Your task to perform on an android device: change keyboard looks Image 0: 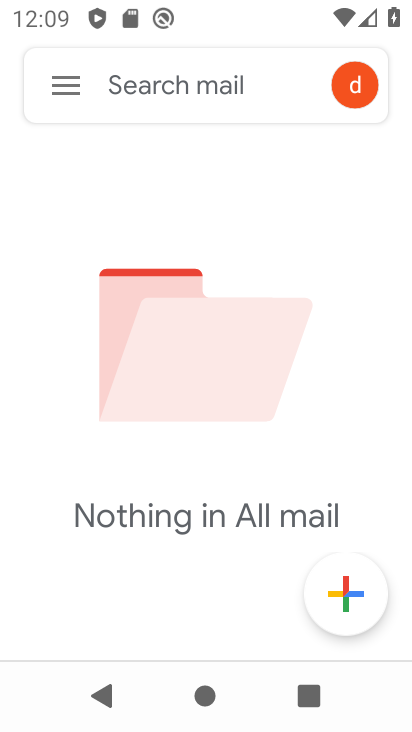
Step 0: press home button
Your task to perform on an android device: change keyboard looks Image 1: 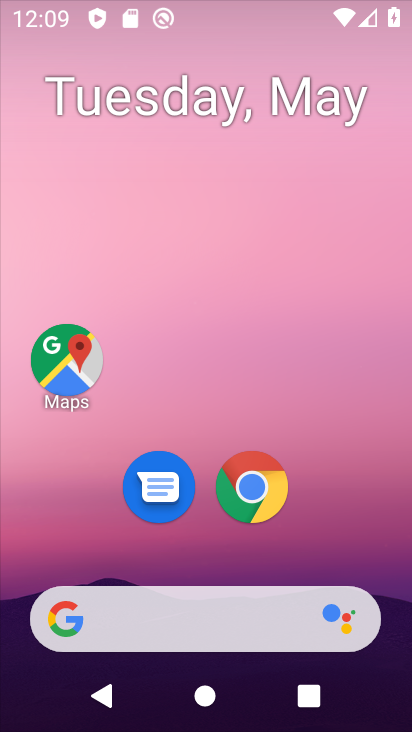
Step 1: drag from (314, 488) to (296, 44)
Your task to perform on an android device: change keyboard looks Image 2: 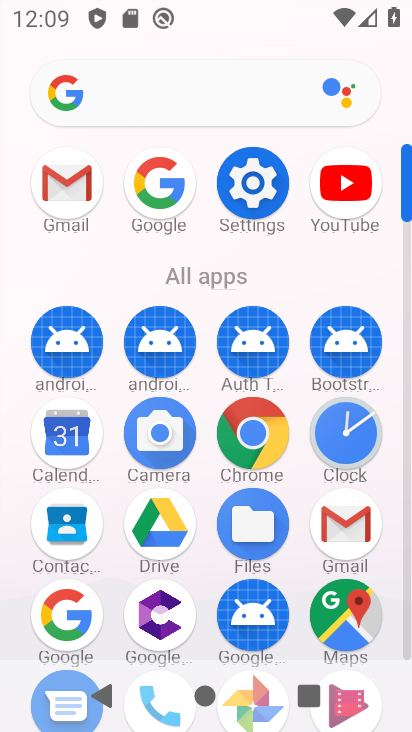
Step 2: click (243, 180)
Your task to perform on an android device: change keyboard looks Image 3: 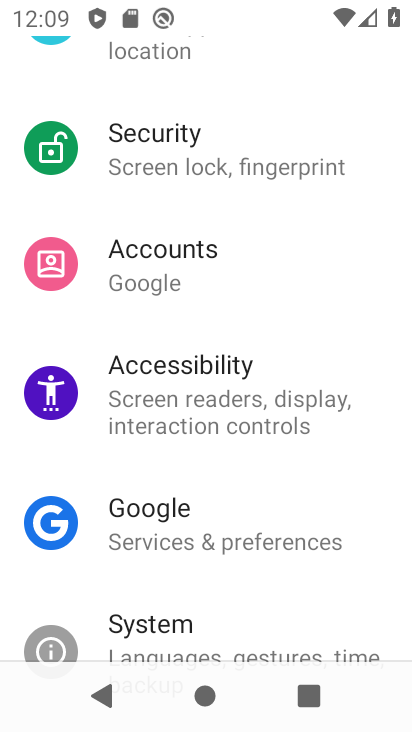
Step 3: click (219, 626)
Your task to perform on an android device: change keyboard looks Image 4: 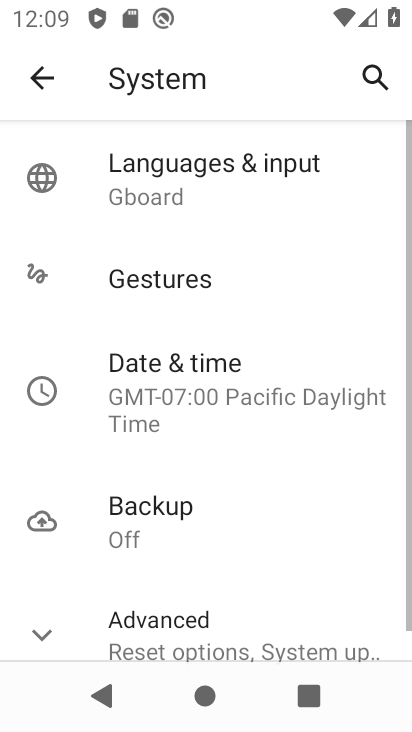
Step 4: click (214, 176)
Your task to perform on an android device: change keyboard looks Image 5: 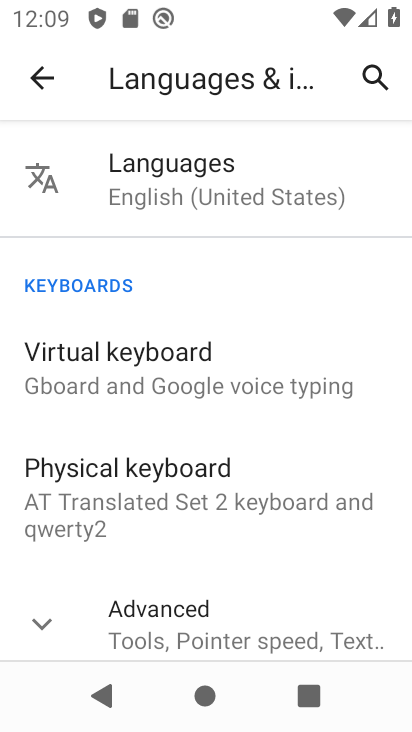
Step 5: click (183, 333)
Your task to perform on an android device: change keyboard looks Image 6: 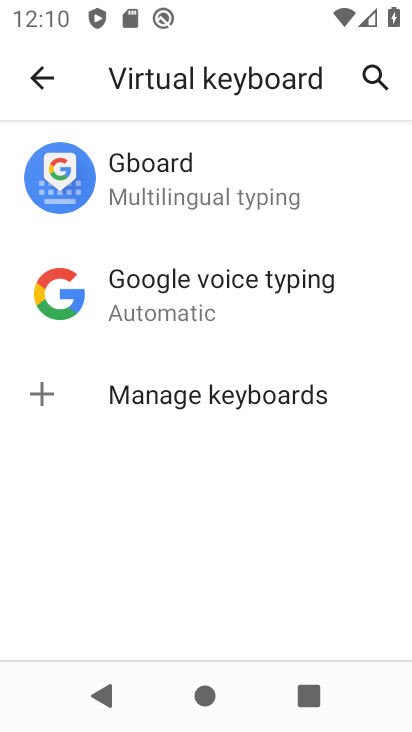
Step 6: click (222, 145)
Your task to perform on an android device: change keyboard looks Image 7: 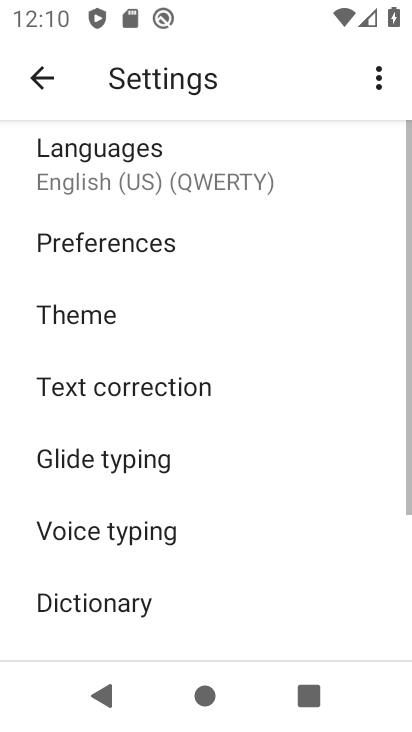
Step 7: click (160, 307)
Your task to perform on an android device: change keyboard looks Image 8: 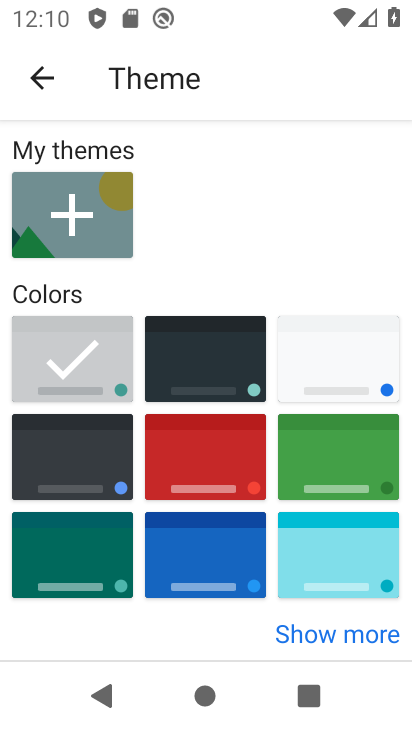
Step 8: click (336, 468)
Your task to perform on an android device: change keyboard looks Image 9: 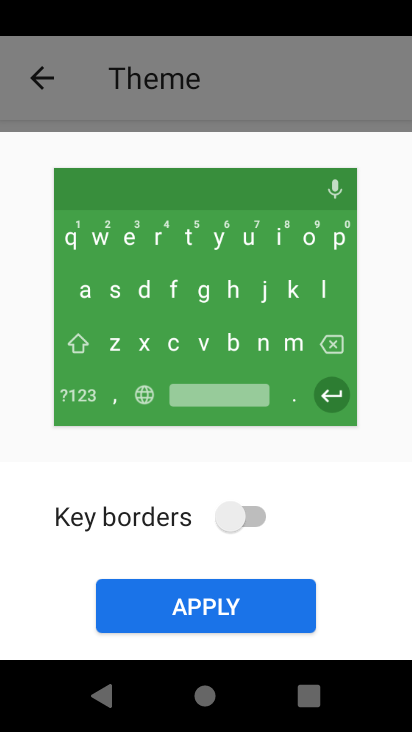
Step 9: click (265, 604)
Your task to perform on an android device: change keyboard looks Image 10: 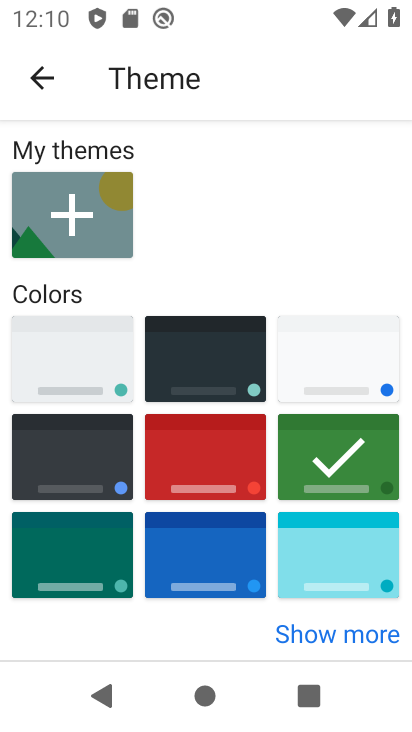
Step 10: task complete